Your task to perform on an android device: Add razer thresher to the cart on newegg.com Image 0: 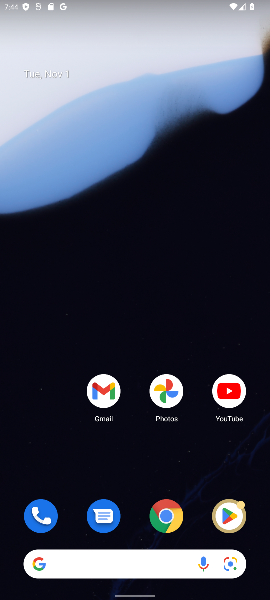
Step 0: click (146, 47)
Your task to perform on an android device: Add razer thresher to the cart on newegg.com Image 1: 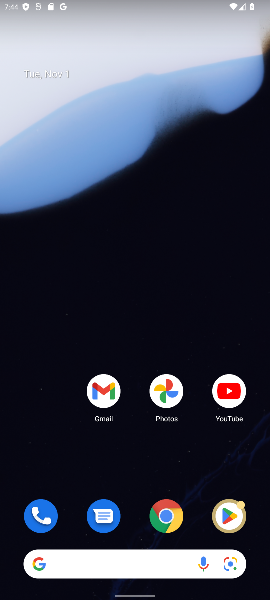
Step 1: drag from (134, 493) to (155, 53)
Your task to perform on an android device: Add razer thresher to the cart on newegg.com Image 2: 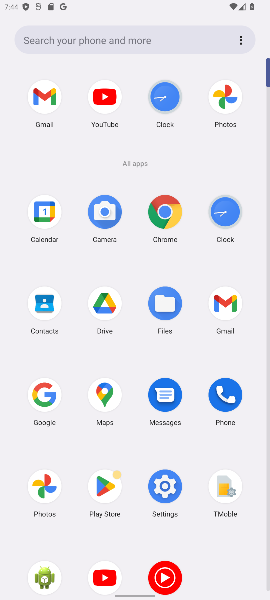
Step 2: click (162, 208)
Your task to perform on an android device: Add razer thresher to the cart on newegg.com Image 3: 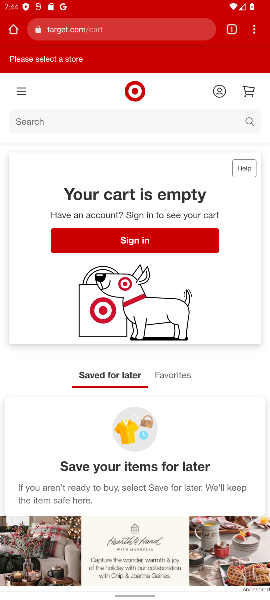
Step 3: click (79, 31)
Your task to perform on an android device: Add razer thresher to the cart on newegg.com Image 4: 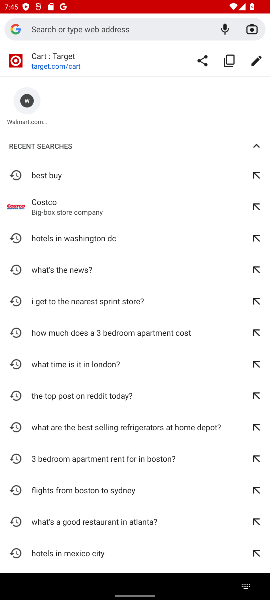
Step 4: type "newegg.com"
Your task to perform on an android device: Add razer thresher to the cart on newegg.com Image 5: 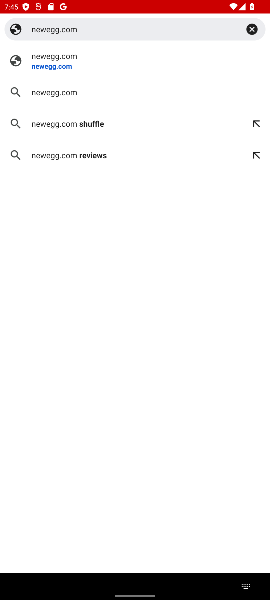
Step 5: click (74, 59)
Your task to perform on an android device: Add razer thresher to the cart on newegg.com Image 6: 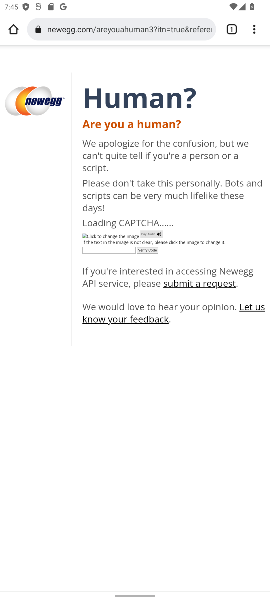
Step 6: press back button
Your task to perform on an android device: Add razer thresher to the cart on newegg.com Image 7: 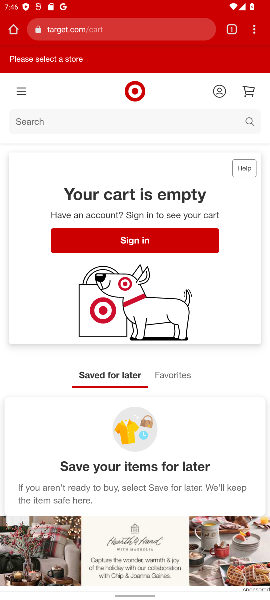
Step 7: click (93, 25)
Your task to perform on an android device: Add razer thresher to the cart on newegg.com Image 8: 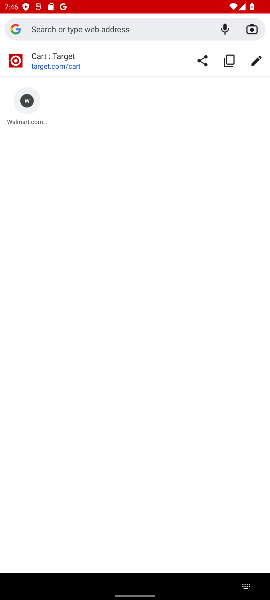
Step 8: type "newegg.com"
Your task to perform on an android device: Add razer thresher to the cart on newegg.com Image 9: 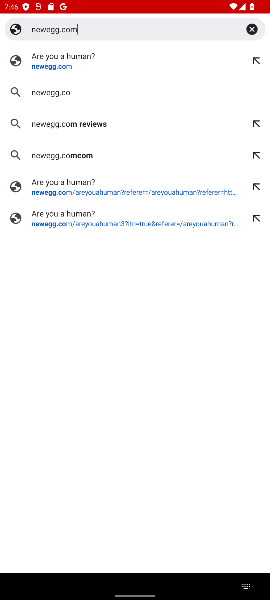
Step 9: type ""
Your task to perform on an android device: Add razer thresher to the cart on newegg.com Image 10: 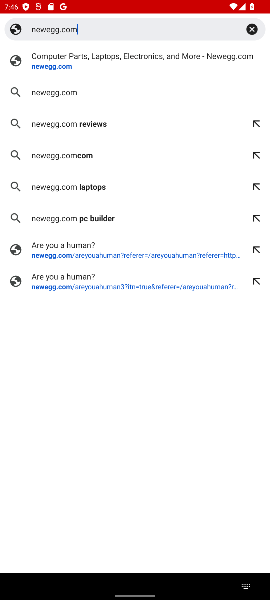
Step 10: click (63, 96)
Your task to perform on an android device: Add razer thresher to the cart on newegg.com Image 11: 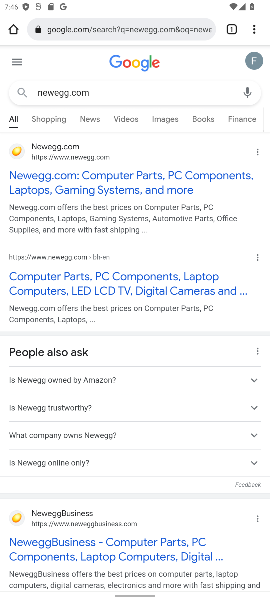
Step 11: click (115, 547)
Your task to perform on an android device: Add razer thresher to the cart on newegg.com Image 12: 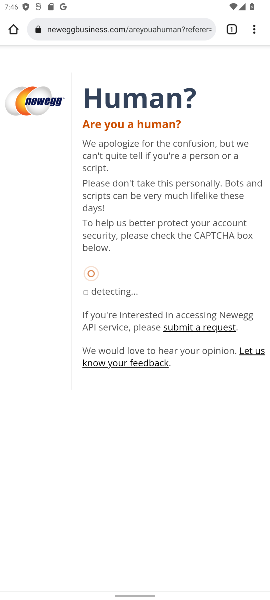
Step 12: press back button
Your task to perform on an android device: Add razer thresher to the cart on newegg.com Image 13: 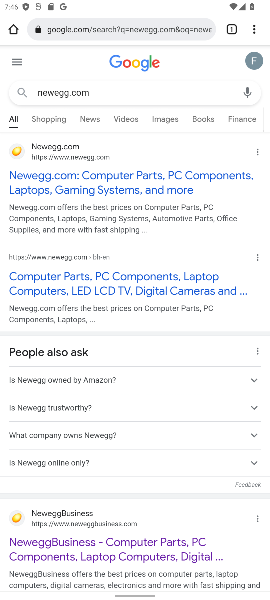
Step 13: click (87, 194)
Your task to perform on an android device: Add razer thresher to the cart on newegg.com Image 14: 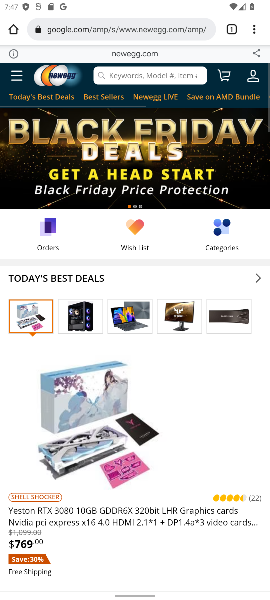
Step 14: drag from (142, 414) to (145, 254)
Your task to perform on an android device: Add razer thresher to the cart on newegg.com Image 15: 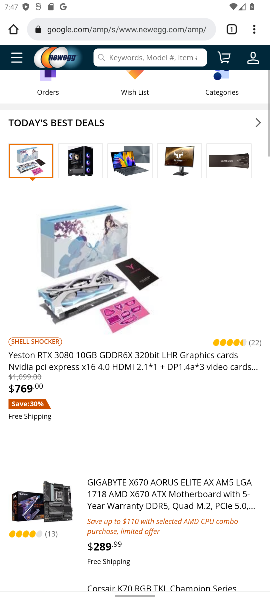
Step 15: click (138, 56)
Your task to perform on an android device: Add razer thresher to the cart on newegg.com Image 16: 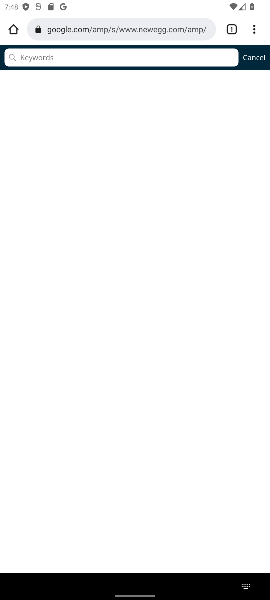
Step 16: type "razer thresher "
Your task to perform on an android device: Add razer thresher to the cart on newegg.com Image 17: 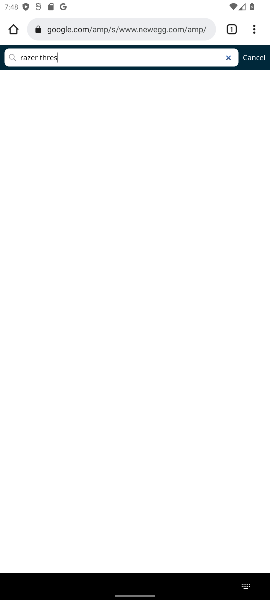
Step 17: type ""
Your task to perform on an android device: Add razer thresher to the cart on newegg.com Image 18: 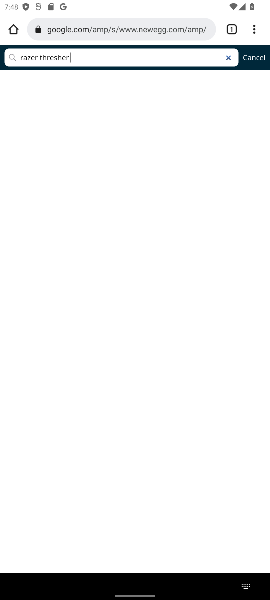
Step 18: task complete